Your task to perform on an android device: Go to sound settings Image 0: 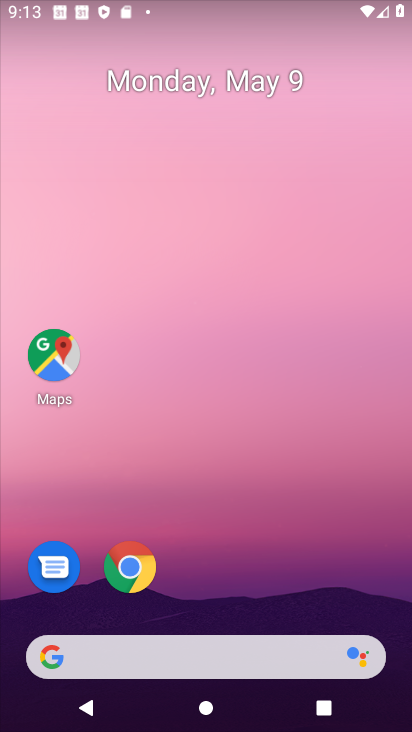
Step 0: drag from (194, 635) to (30, 2)
Your task to perform on an android device: Go to sound settings Image 1: 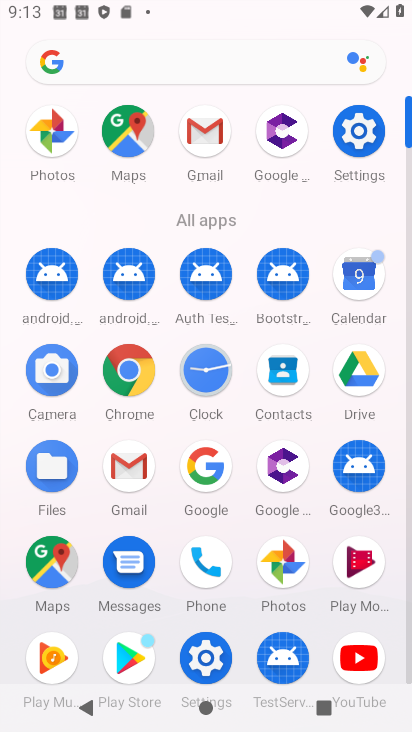
Step 1: click (347, 154)
Your task to perform on an android device: Go to sound settings Image 2: 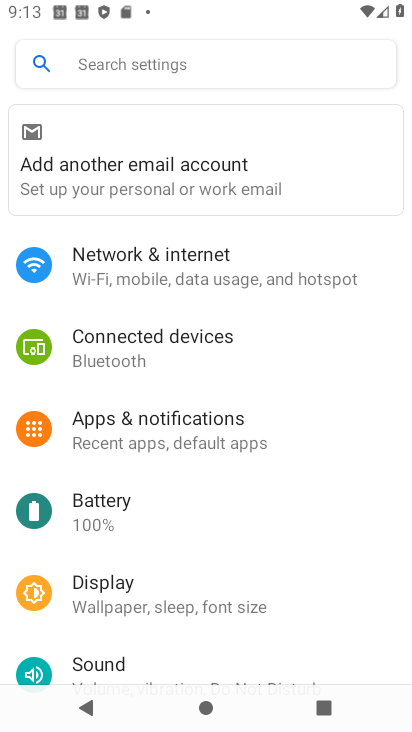
Step 2: drag from (100, 607) to (85, 245)
Your task to perform on an android device: Go to sound settings Image 3: 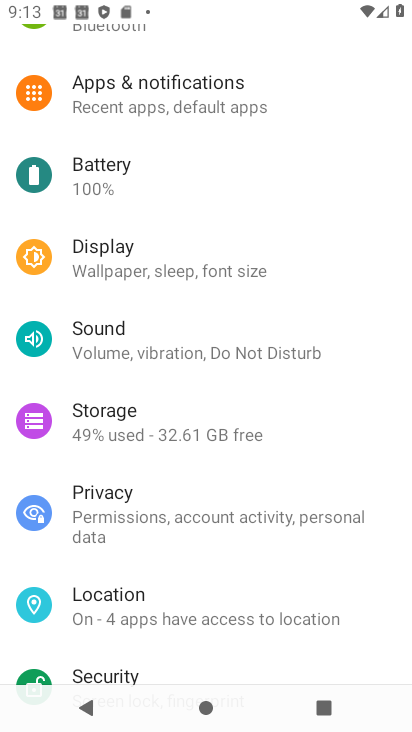
Step 3: click (103, 357)
Your task to perform on an android device: Go to sound settings Image 4: 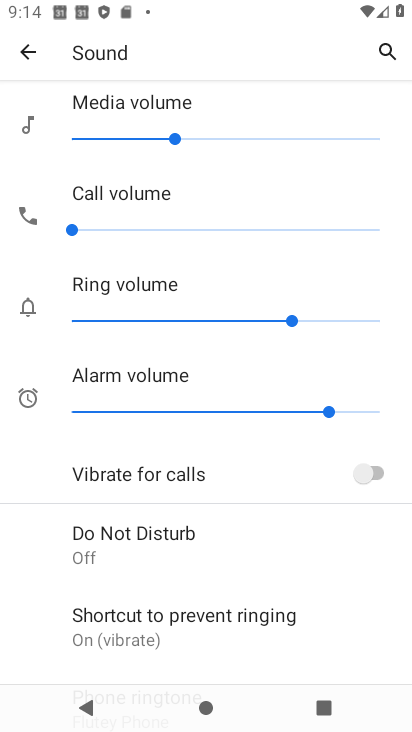
Step 4: task complete